Your task to perform on an android device: manage bookmarks in the chrome app Image 0: 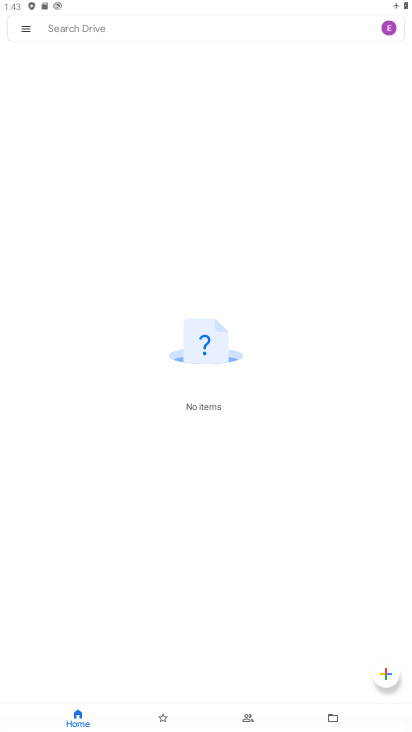
Step 0: drag from (161, 649) to (207, 281)
Your task to perform on an android device: manage bookmarks in the chrome app Image 1: 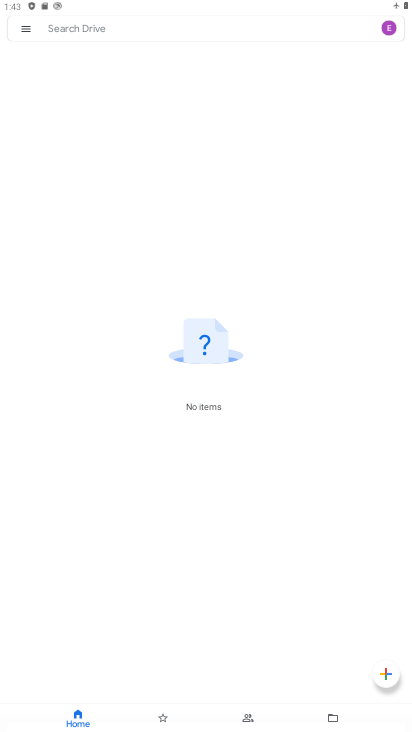
Step 1: press home button
Your task to perform on an android device: manage bookmarks in the chrome app Image 2: 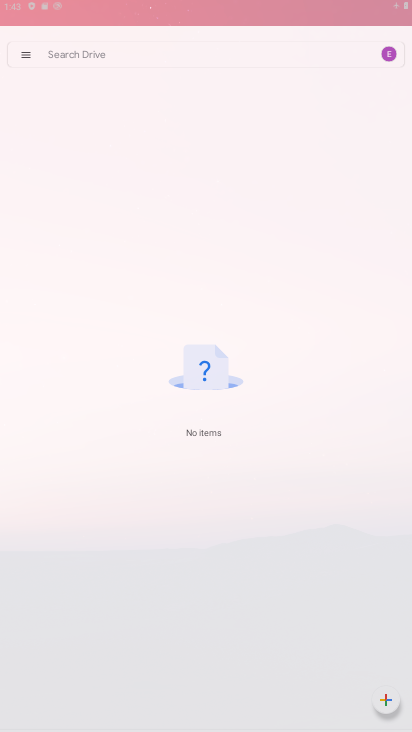
Step 2: drag from (195, 531) to (243, 238)
Your task to perform on an android device: manage bookmarks in the chrome app Image 3: 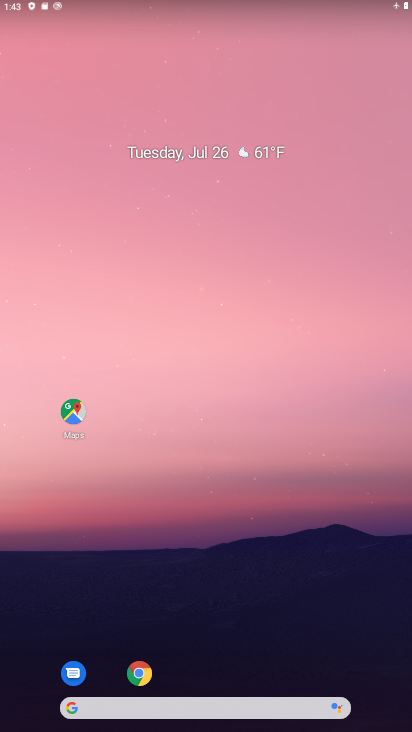
Step 3: drag from (185, 596) to (266, 60)
Your task to perform on an android device: manage bookmarks in the chrome app Image 4: 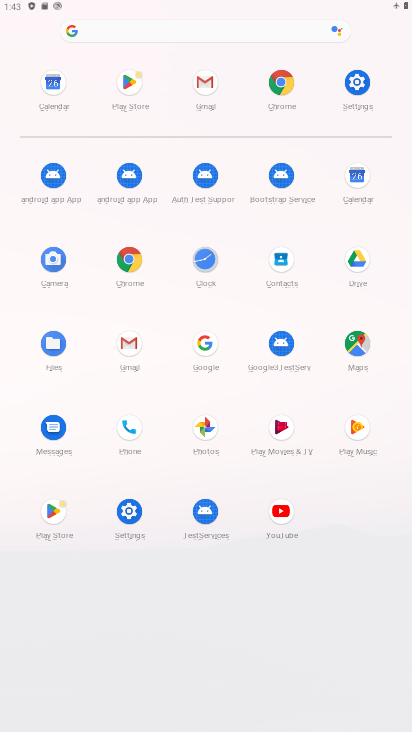
Step 4: click (280, 86)
Your task to perform on an android device: manage bookmarks in the chrome app Image 5: 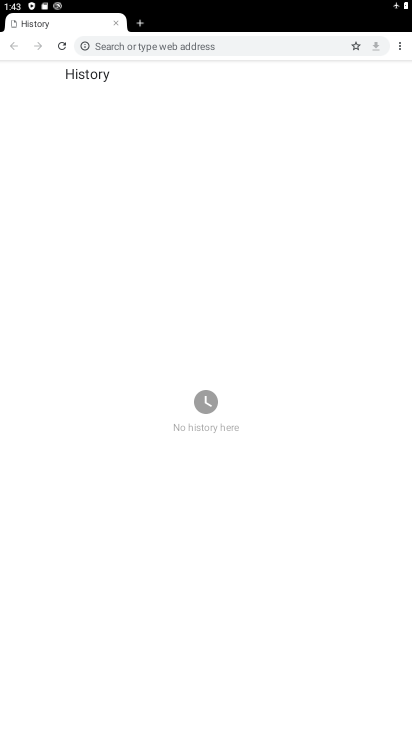
Step 5: task complete